Your task to perform on an android device: turn off notifications in google photos Image 0: 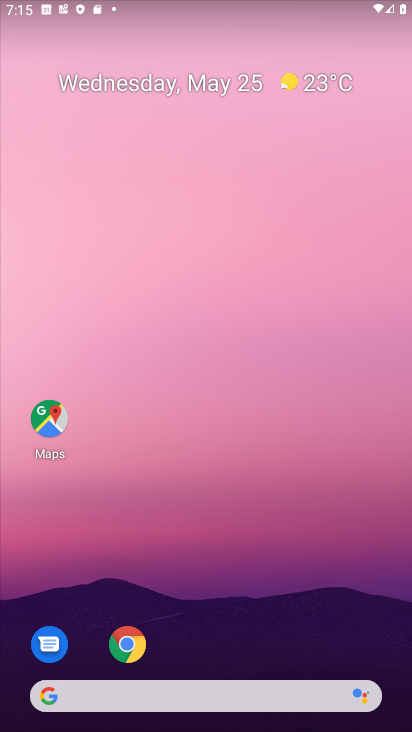
Step 0: press home button
Your task to perform on an android device: turn off notifications in google photos Image 1: 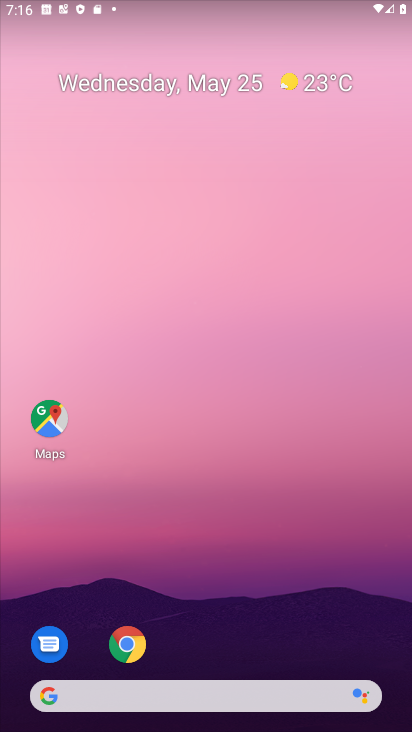
Step 1: drag from (325, 712) to (277, 278)
Your task to perform on an android device: turn off notifications in google photos Image 2: 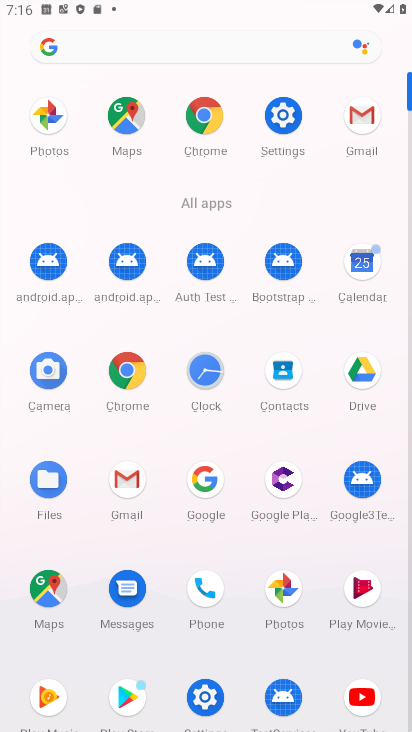
Step 2: click (274, 597)
Your task to perform on an android device: turn off notifications in google photos Image 3: 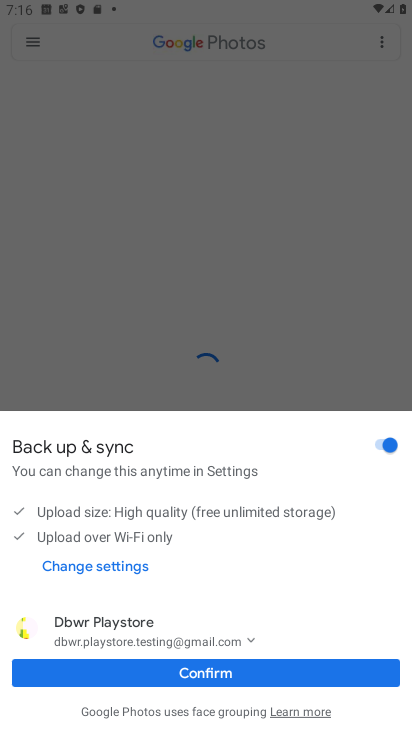
Step 3: click (237, 674)
Your task to perform on an android device: turn off notifications in google photos Image 4: 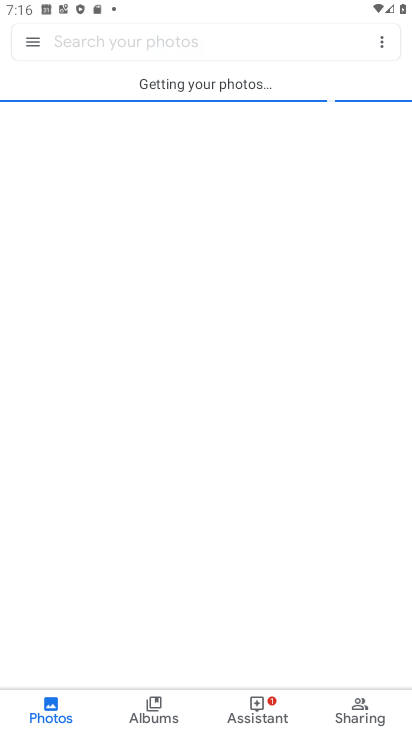
Step 4: click (32, 34)
Your task to perform on an android device: turn off notifications in google photos Image 5: 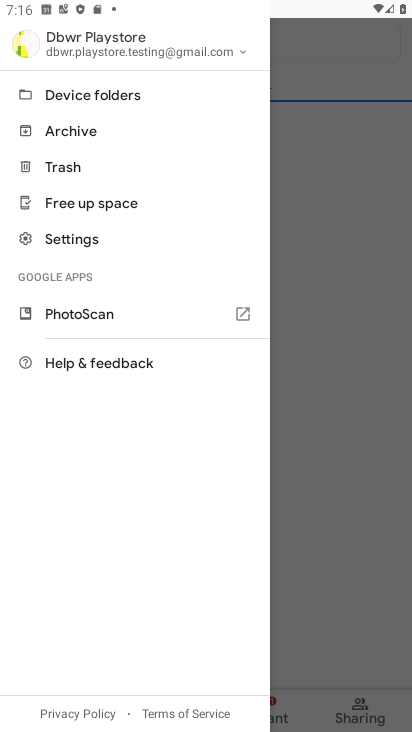
Step 5: click (97, 228)
Your task to perform on an android device: turn off notifications in google photos Image 6: 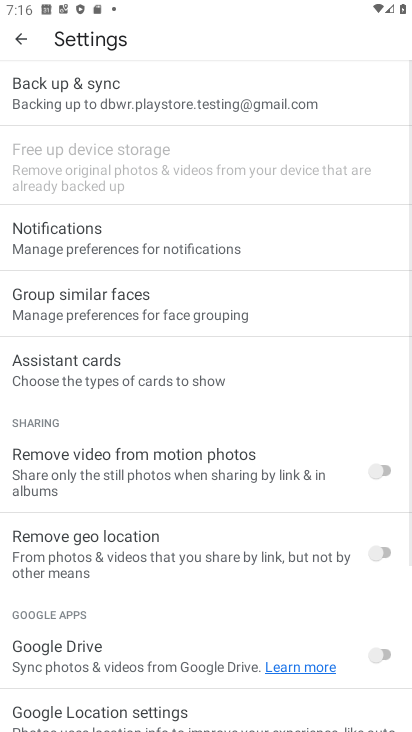
Step 6: click (111, 231)
Your task to perform on an android device: turn off notifications in google photos Image 7: 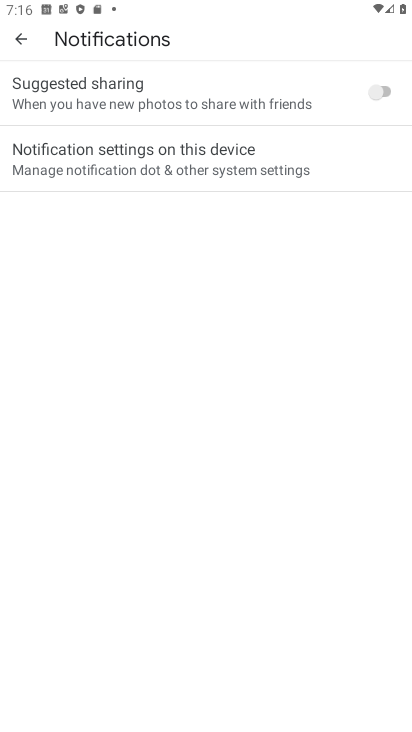
Step 7: click (146, 163)
Your task to perform on an android device: turn off notifications in google photos Image 8: 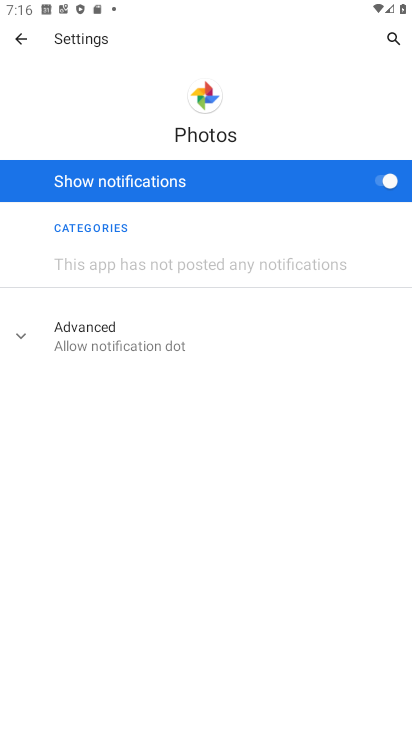
Step 8: click (384, 178)
Your task to perform on an android device: turn off notifications in google photos Image 9: 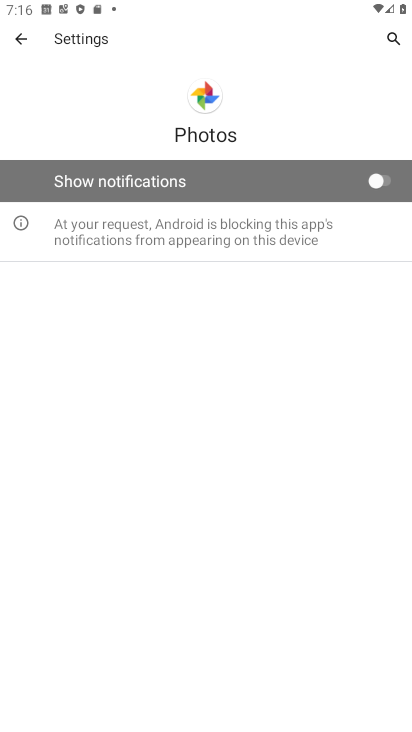
Step 9: task complete